Your task to perform on an android device: Go to Google Image 0: 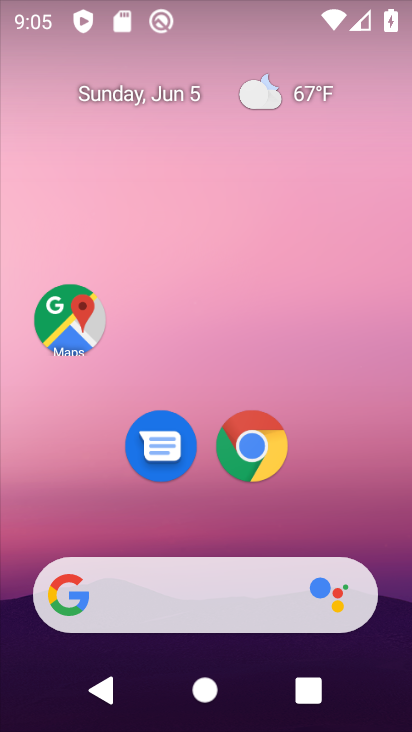
Step 0: drag from (205, 536) to (211, 127)
Your task to perform on an android device: Go to Google Image 1: 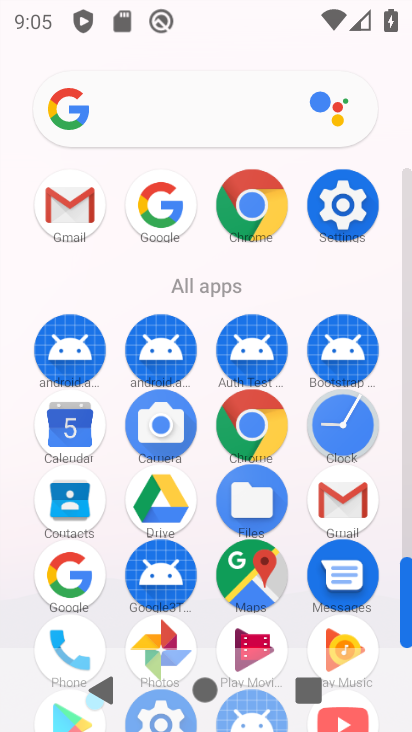
Step 1: click (172, 214)
Your task to perform on an android device: Go to Google Image 2: 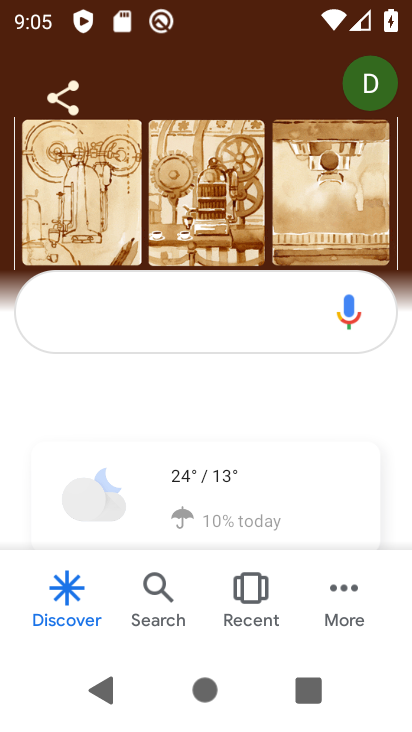
Step 2: task complete